Your task to perform on an android device: turn off translation in the chrome app Image 0: 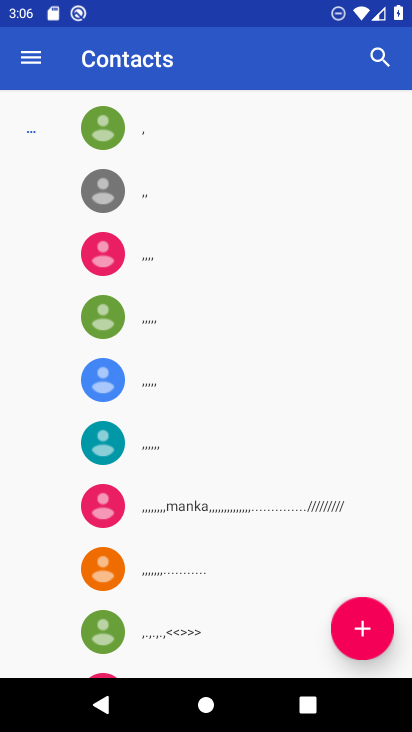
Step 0: press home button
Your task to perform on an android device: turn off translation in the chrome app Image 1: 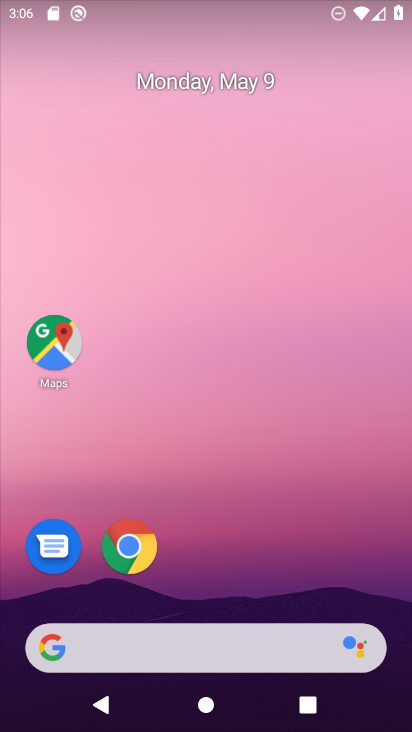
Step 1: click (131, 564)
Your task to perform on an android device: turn off translation in the chrome app Image 2: 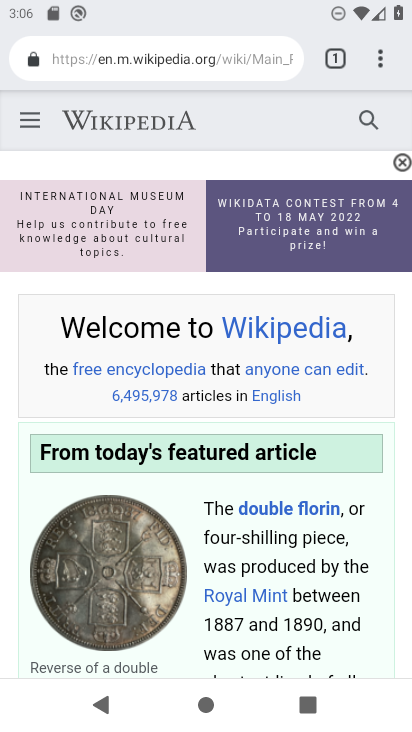
Step 2: click (385, 58)
Your task to perform on an android device: turn off translation in the chrome app Image 3: 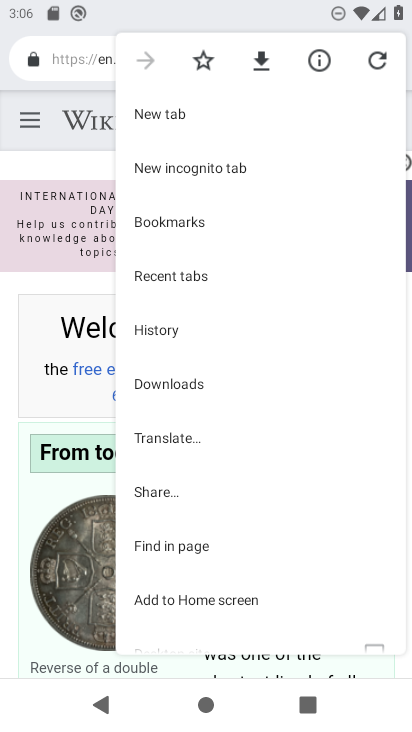
Step 3: drag from (202, 572) to (208, 318)
Your task to perform on an android device: turn off translation in the chrome app Image 4: 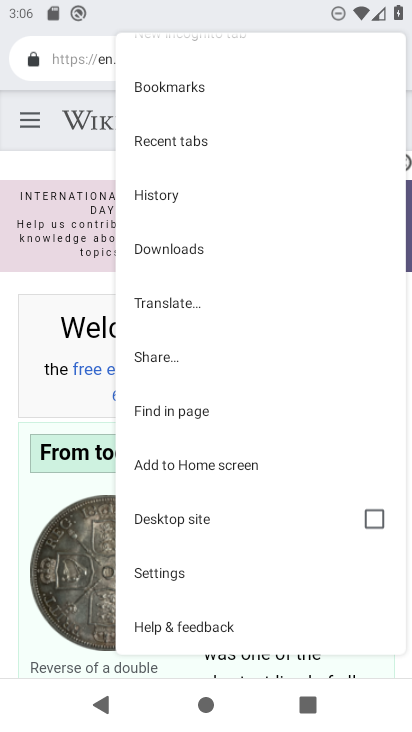
Step 4: click (195, 564)
Your task to perform on an android device: turn off translation in the chrome app Image 5: 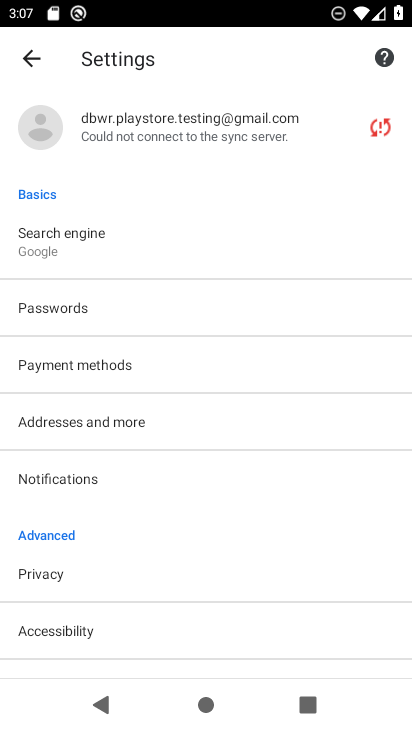
Step 5: drag from (111, 546) to (136, 274)
Your task to perform on an android device: turn off translation in the chrome app Image 6: 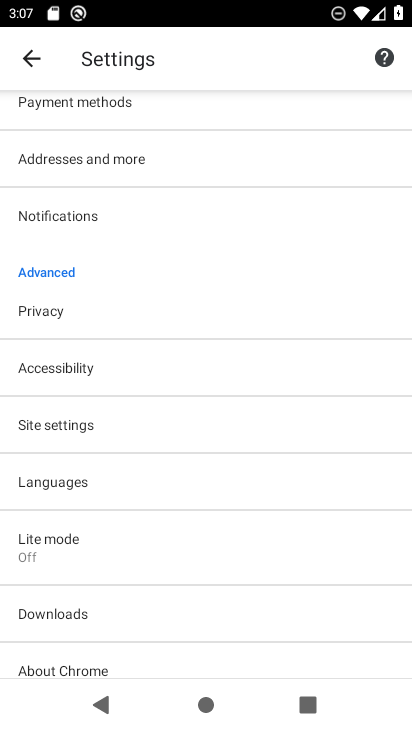
Step 6: click (87, 486)
Your task to perform on an android device: turn off translation in the chrome app Image 7: 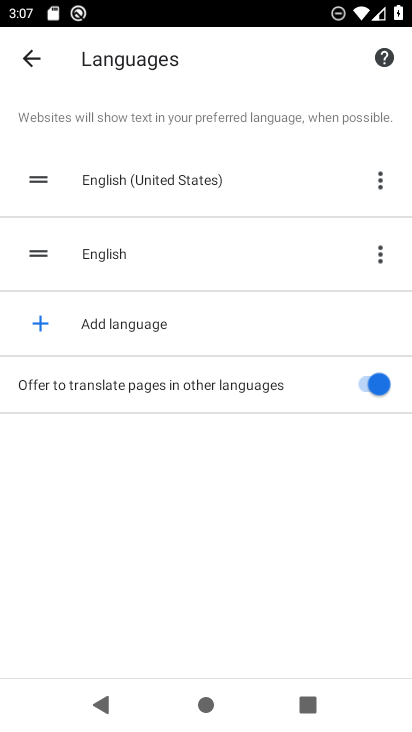
Step 7: click (367, 384)
Your task to perform on an android device: turn off translation in the chrome app Image 8: 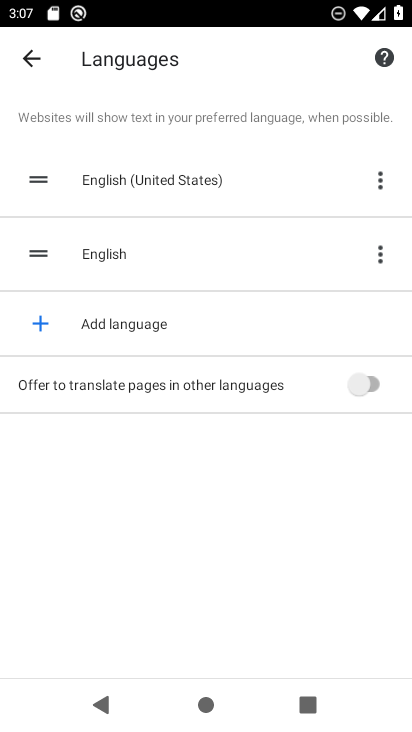
Step 8: task complete